Your task to perform on an android device: Open settings Image 0: 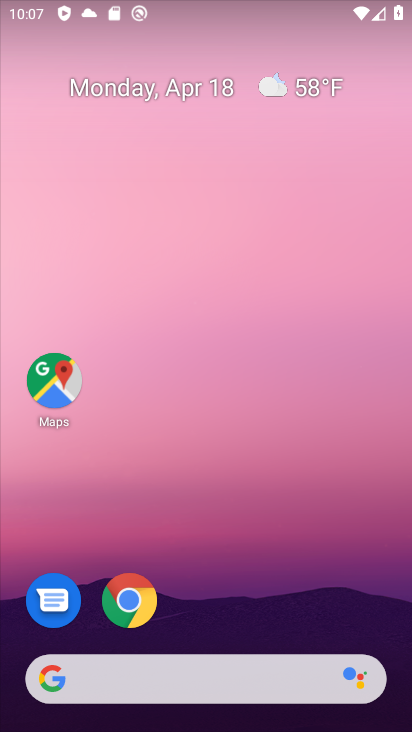
Step 0: drag from (233, 556) to (240, 17)
Your task to perform on an android device: Open settings Image 1: 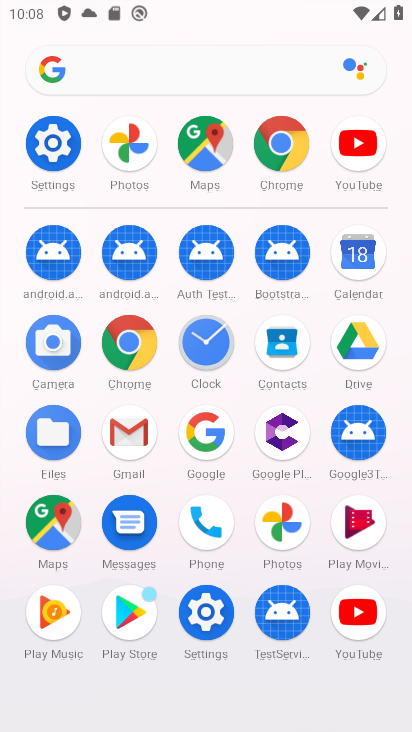
Step 1: click (47, 141)
Your task to perform on an android device: Open settings Image 2: 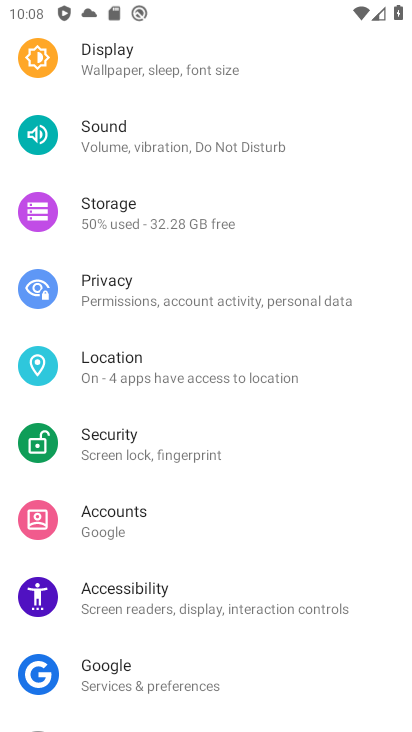
Step 2: task complete